Your task to perform on an android device: turn on improve location accuracy Image 0: 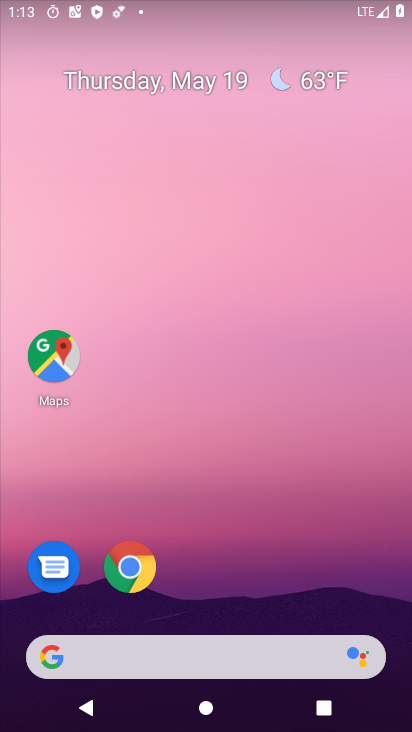
Step 0: press home button
Your task to perform on an android device: turn on improve location accuracy Image 1: 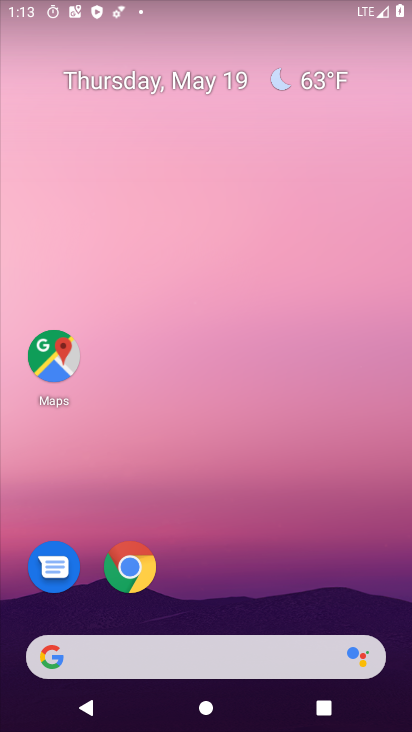
Step 1: drag from (149, 647) to (301, 313)
Your task to perform on an android device: turn on improve location accuracy Image 2: 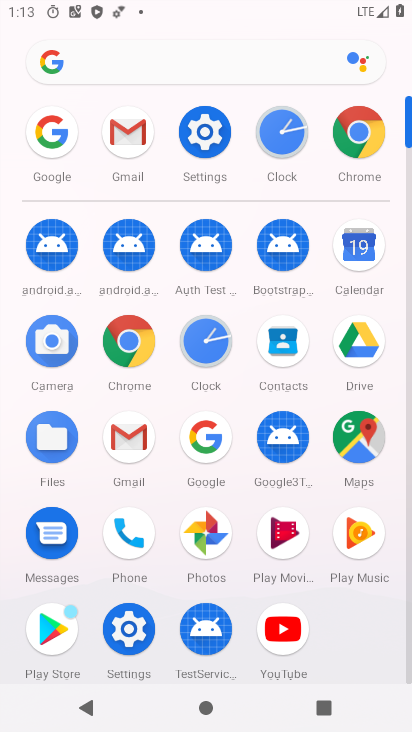
Step 2: click (206, 142)
Your task to perform on an android device: turn on improve location accuracy Image 3: 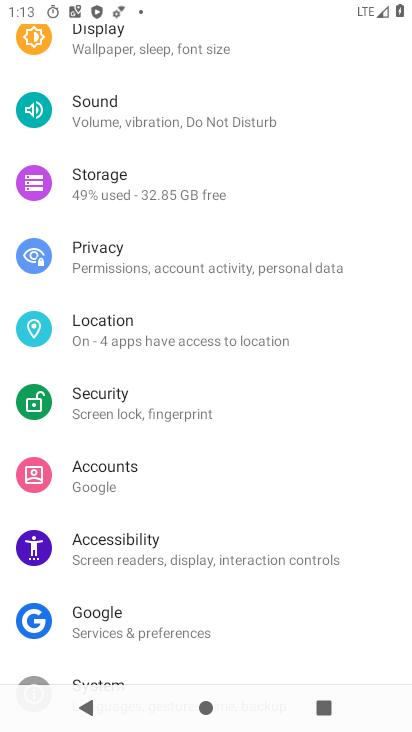
Step 3: click (121, 324)
Your task to perform on an android device: turn on improve location accuracy Image 4: 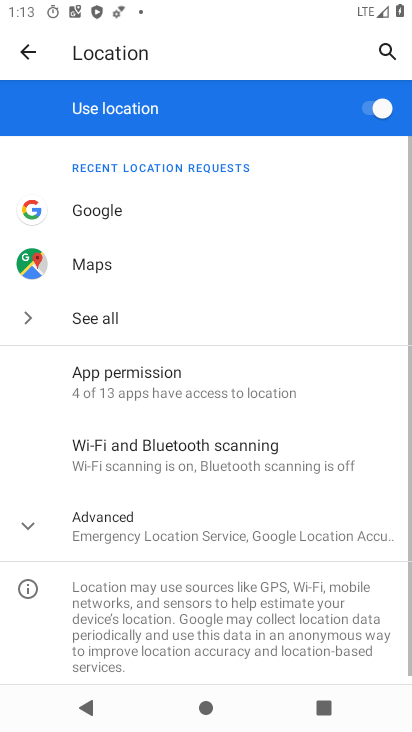
Step 4: click (156, 537)
Your task to perform on an android device: turn on improve location accuracy Image 5: 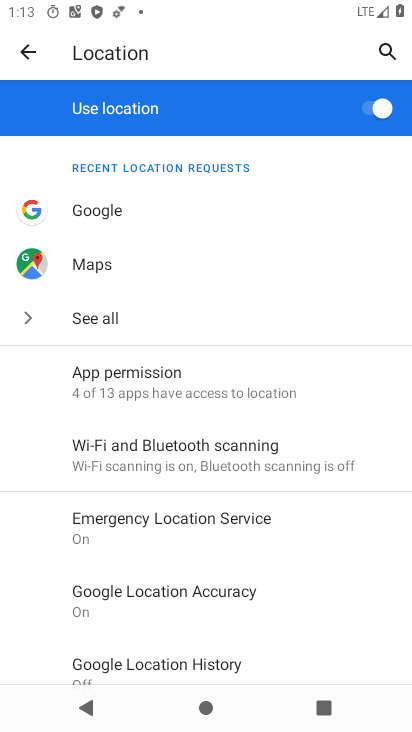
Step 5: click (175, 600)
Your task to perform on an android device: turn on improve location accuracy Image 6: 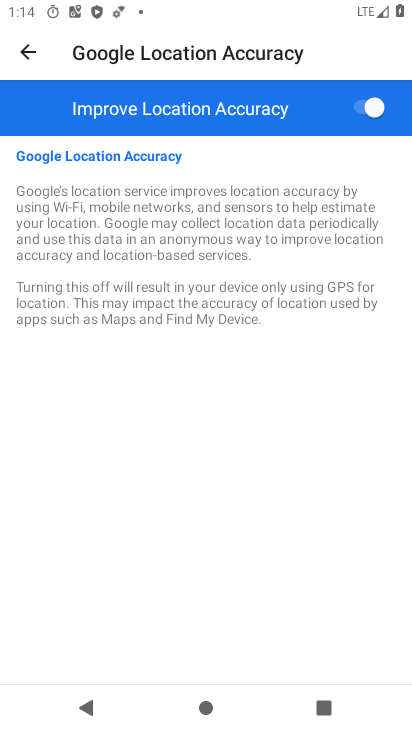
Step 6: task complete